Your task to perform on an android device: check storage Image 0: 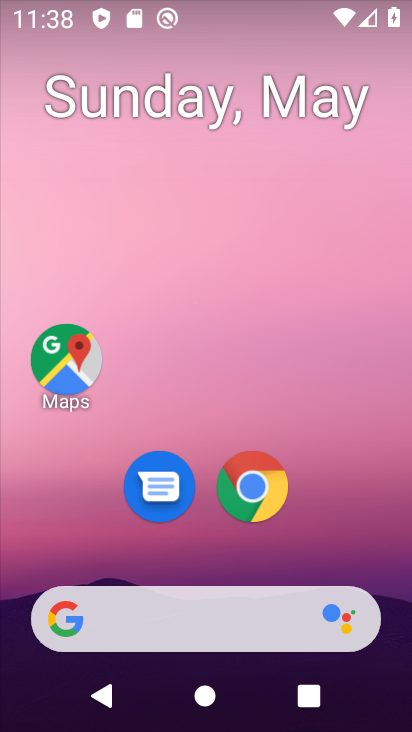
Step 0: click (285, 22)
Your task to perform on an android device: check storage Image 1: 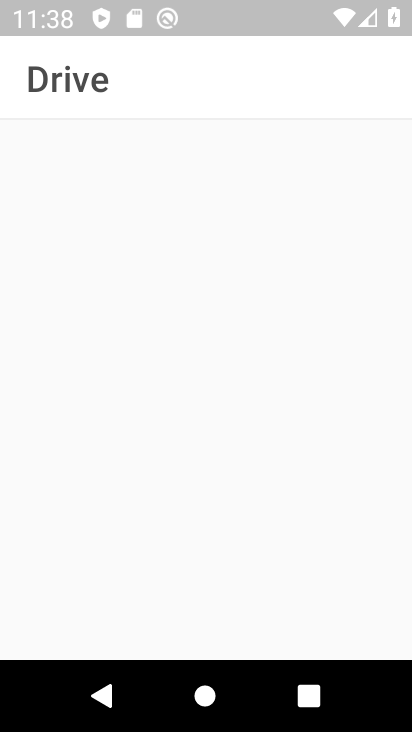
Step 1: press home button
Your task to perform on an android device: check storage Image 2: 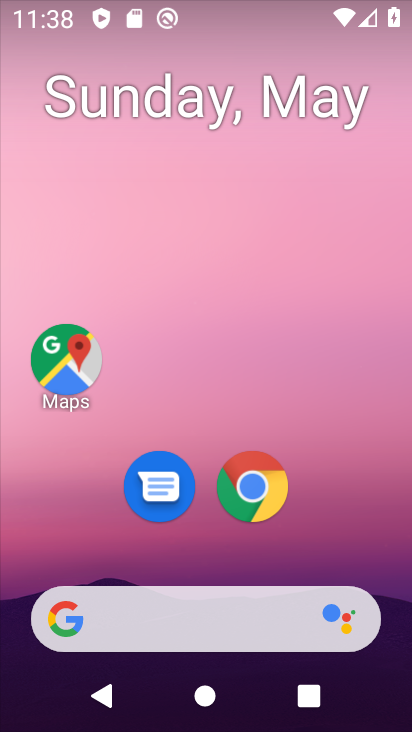
Step 2: drag from (391, 607) to (279, 187)
Your task to perform on an android device: check storage Image 3: 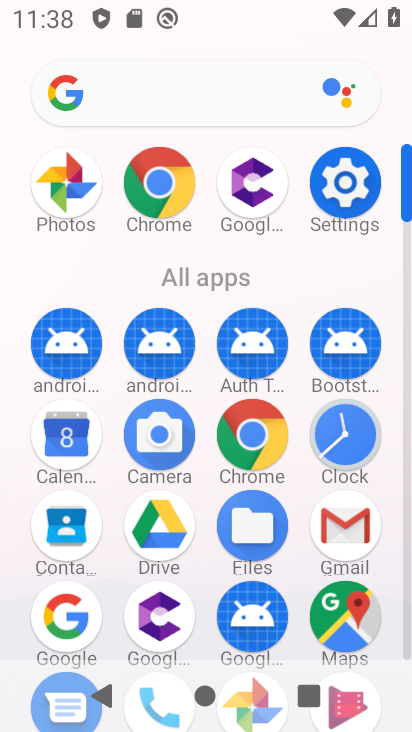
Step 3: click (348, 191)
Your task to perform on an android device: check storage Image 4: 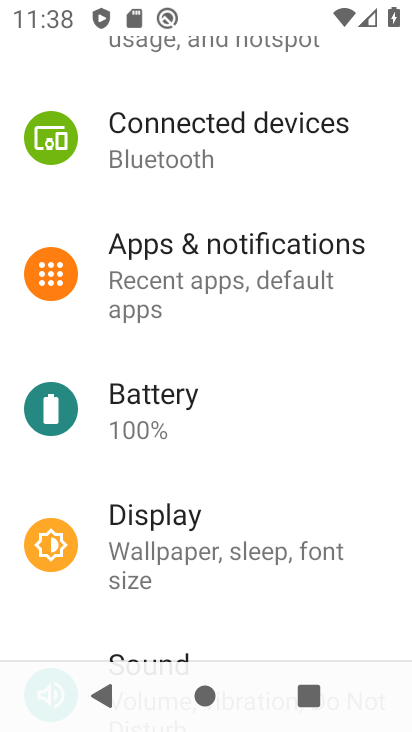
Step 4: drag from (295, 611) to (237, 155)
Your task to perform on an android device: check storage Image 5: 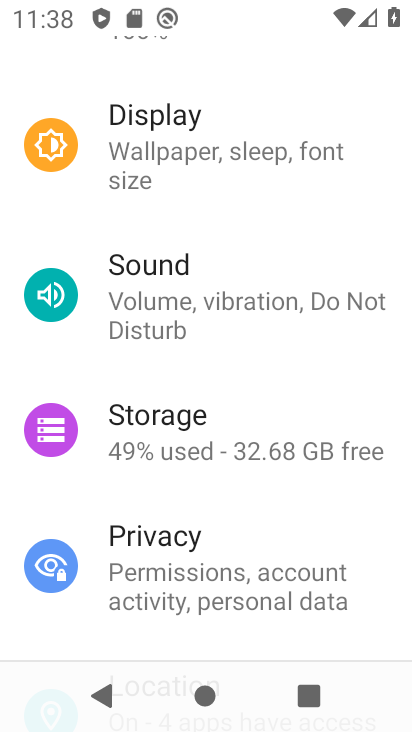
Step 5: click (242, 437)
Your task to perform on an android device: check storage Image 6: 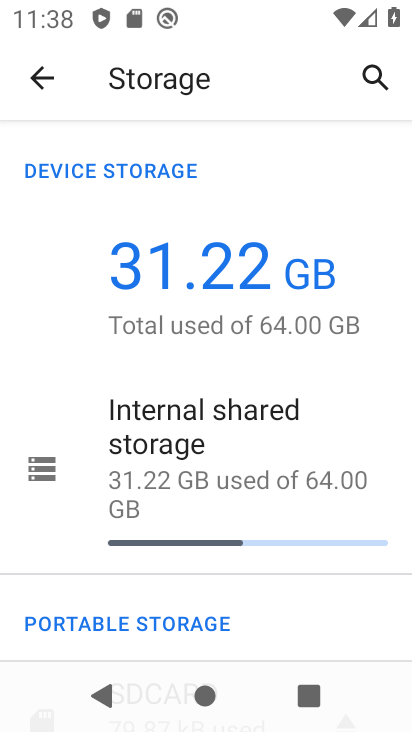
Step 6: task complete